Your task to perform on an android device: Go to battery settings Image 0: 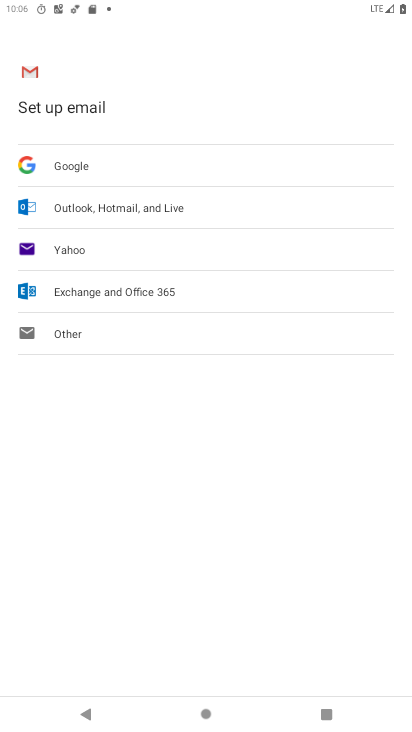
Step 0: press home button
Your task to perform on an android device: Go to battery settings Image 1: 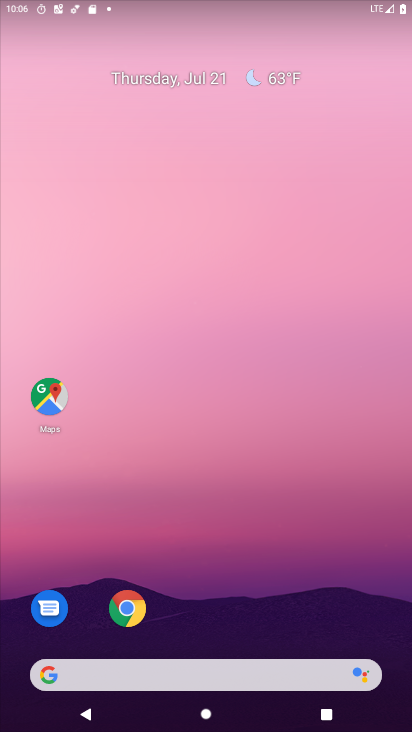
Step 1: drag from (231, 635) to (200, 153)
Your task to perform on an android device: Go to battery settings Image 2: 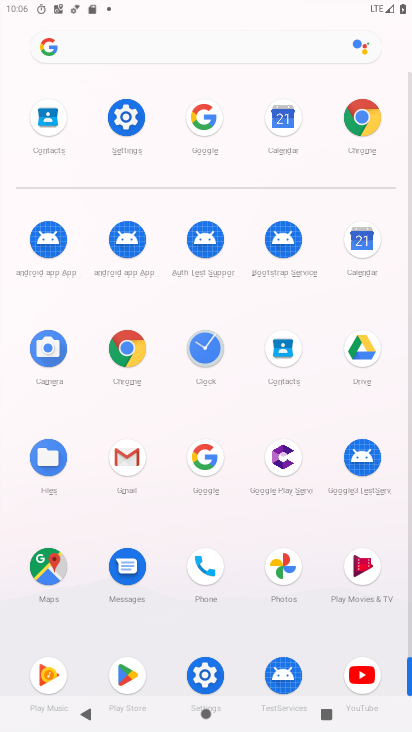
Step 2: click (118, 136)
Your task to perform on an android device: Go to battery settings Image 3: 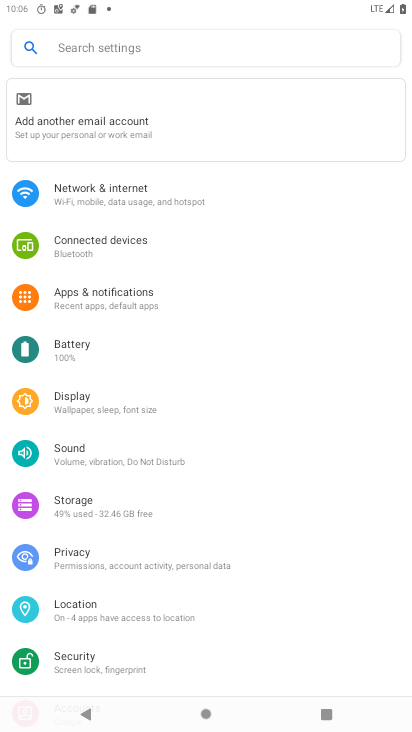
Step 3: click (101, 348)
Your task to perform on an android device: Go to battery settings Image 4: 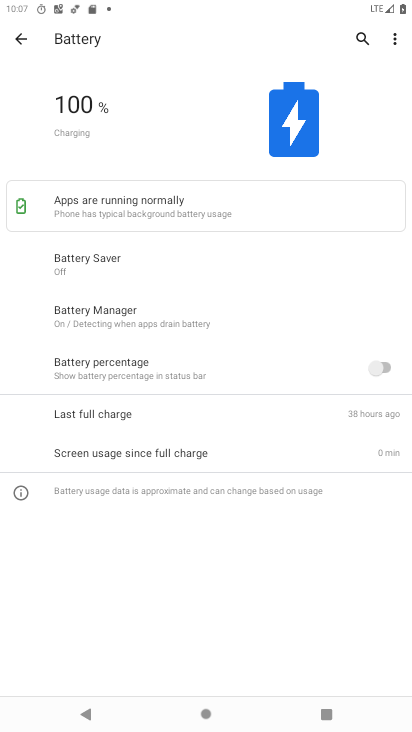
Step 4: task complete